Your task to perform on an android device: see creations saved in the google photos Image 0: 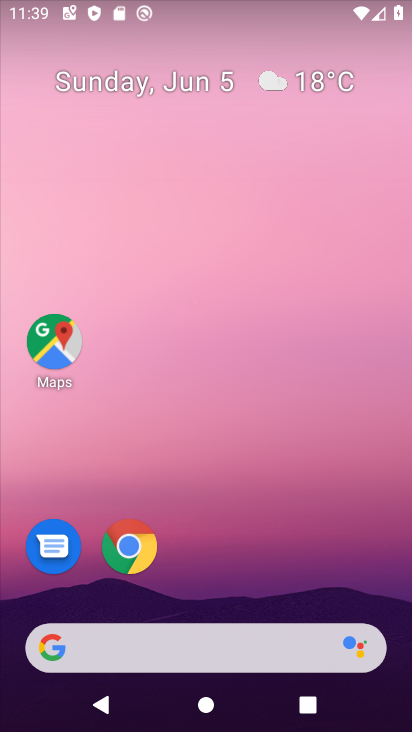
Step 0: drag from (235, 581) to (176, 141)
Your task to perform on an android device: see creations saved in the google photos Image 1: 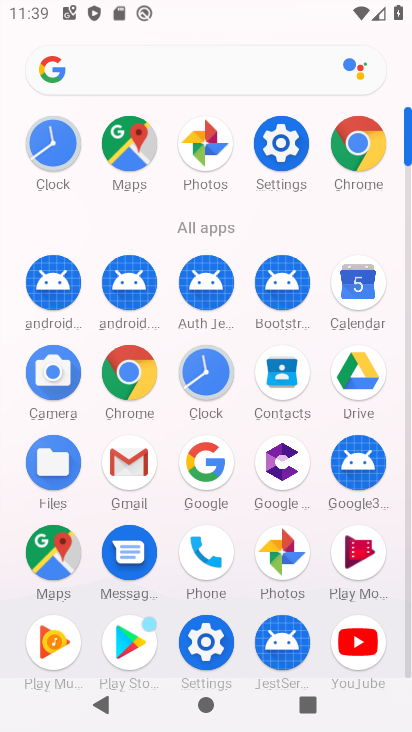
Step 1: click (206, 157)
Your task to perform on an android device: see creations saved in the google photos Image 2: 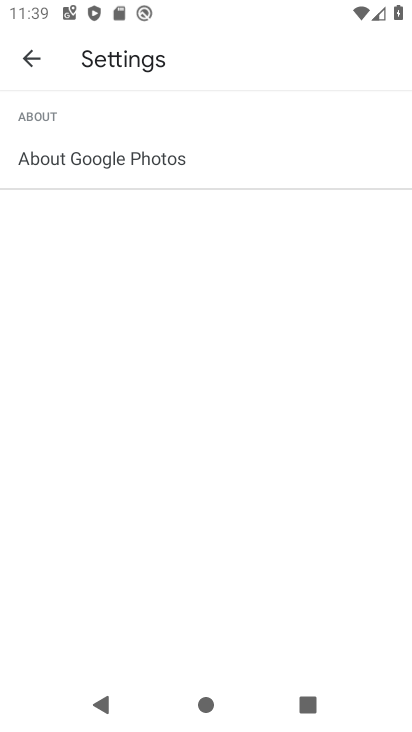
Step 2: click (26, 62)
Your task to perform on an android device: see creations saved in the google photos Image 3: 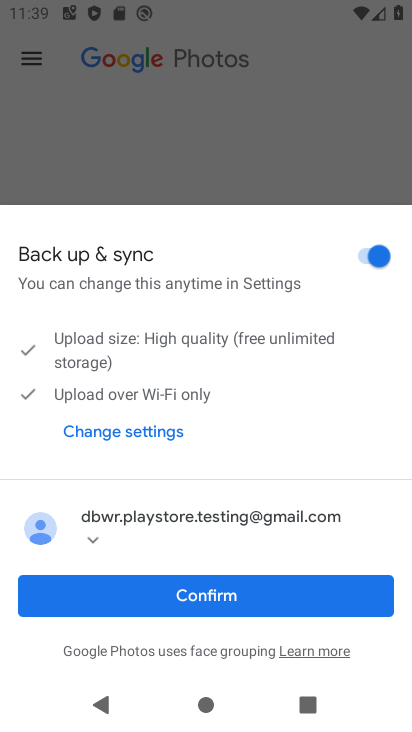
Step 3: click (147, 585)
Your task to perform on an android device: see creations saved in the google photos Image 4: 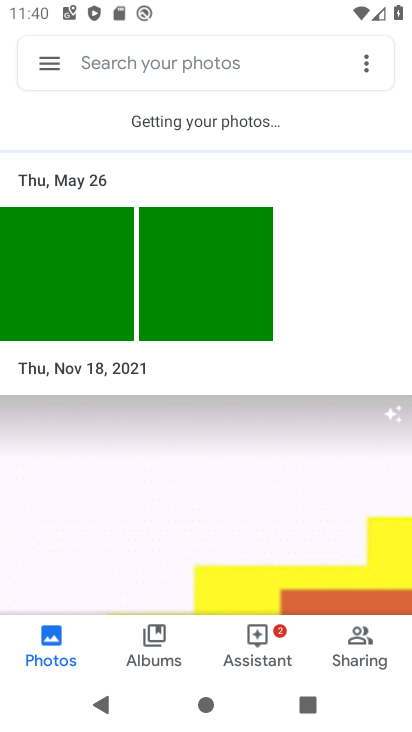
Step 4: click (269, 649)
Your task to perform on an android device: see creations saved in the google photos Image 5: 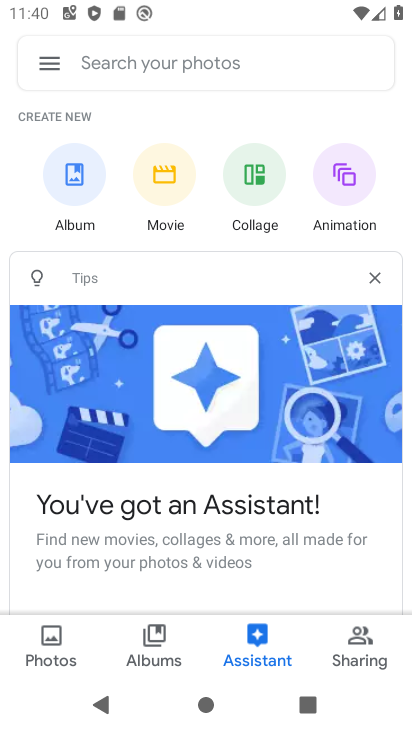
Step 5: drag from (327, 575) to (315, 128)
Your task to perform on an android device: see creations saved in the google photos Image 6: 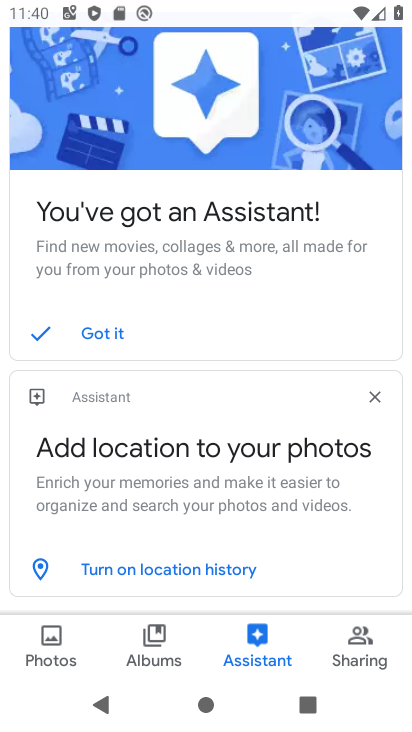
Step 6: drag from (361, 559) to (313, 175)
Your task to perform on an android device: see creations saved in the google photos Image 7: 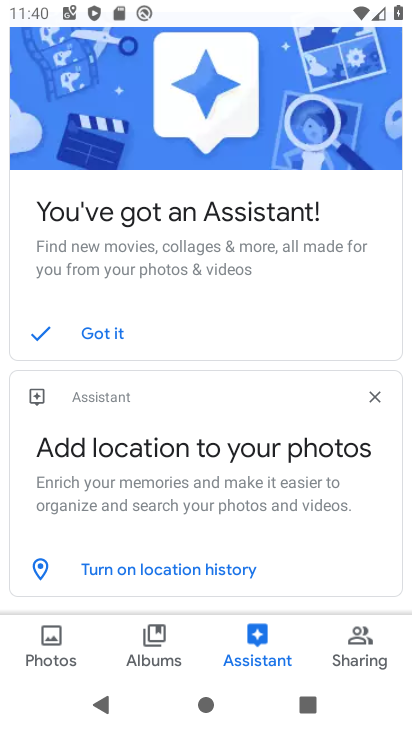
Step 7: drag from (291, 306) to (284, 589)
Your task to perform on an android device: see creations saved in the google photos Image 8: 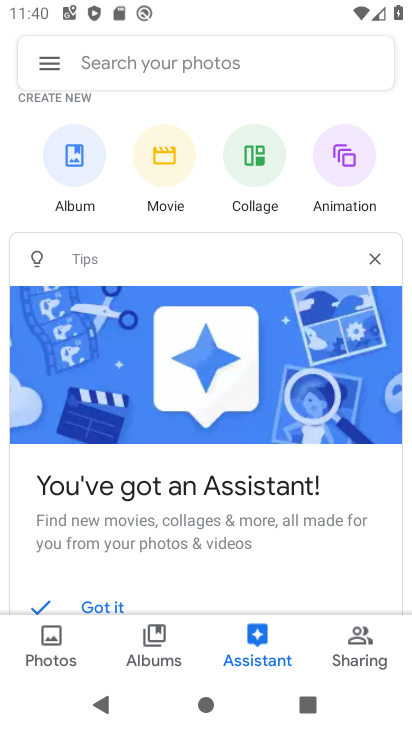
Step 8: click (56, 67)
Your task to perform on an android device: see creations saved in the google photos Image 9: 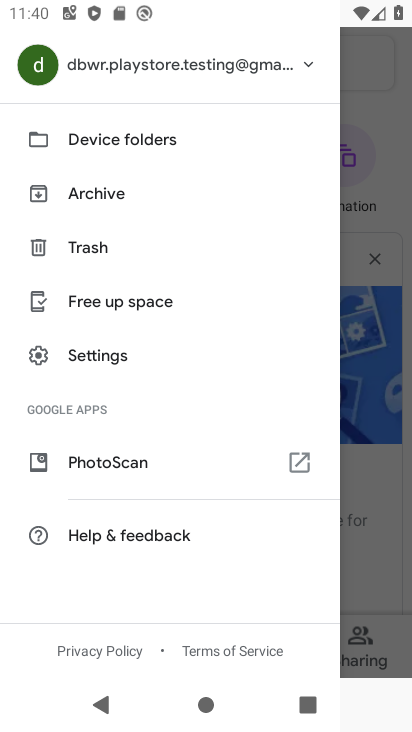
Step 9: task complete